Your task to perform on an android device: What's on my calendar today? Image 0: 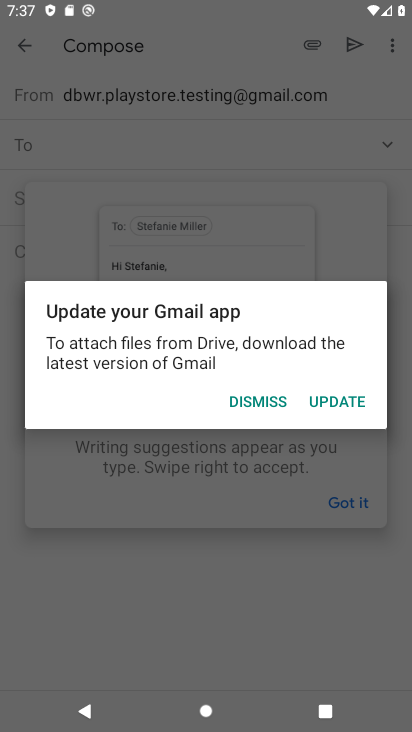
Step 0: press home button
Your task to perform on an android device: What's on my calendar today? Image 1: 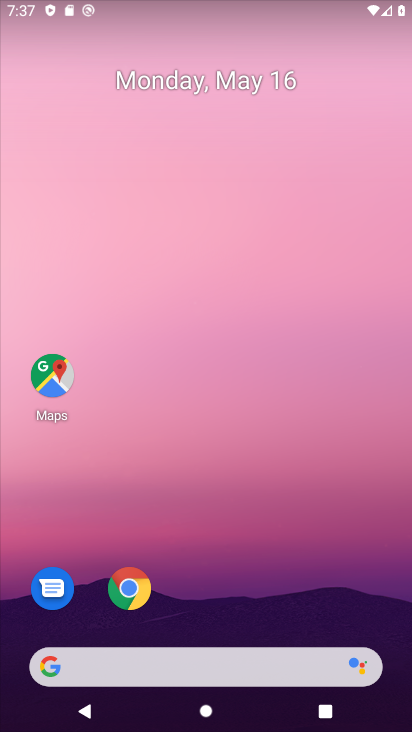
Step 1: drag from (319, 582) to (301, 131)
Your task to perform on an android device: What's on my calendar today? Image 2: 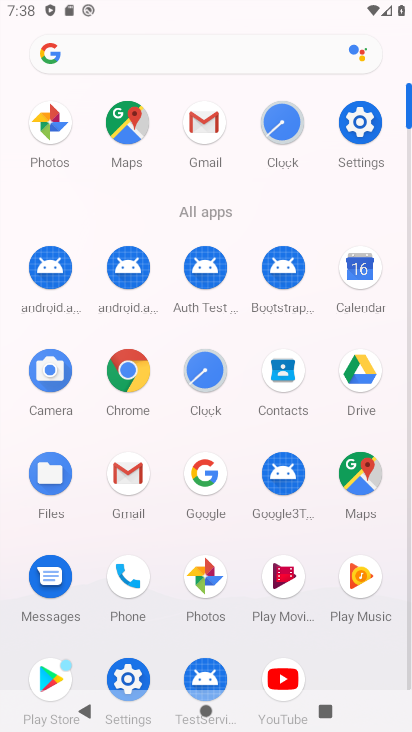
Step 2: click (365, 281)
Your task to perform on an android device: What's on my calendar today? Image 3: 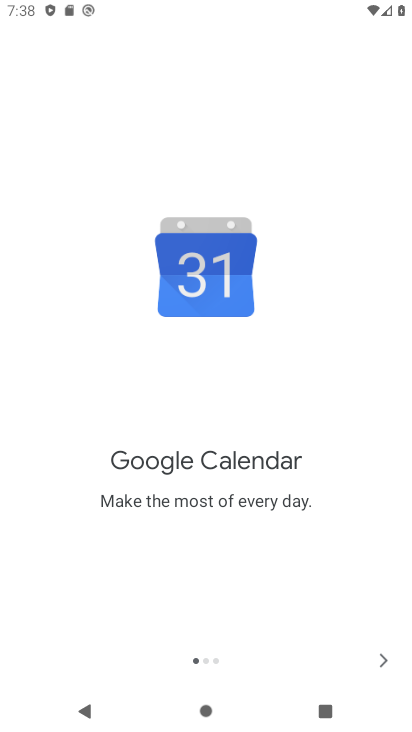
Step 3: click (377, 660)
Your task to perform on an android device: What's on my calendar today? Image 4: 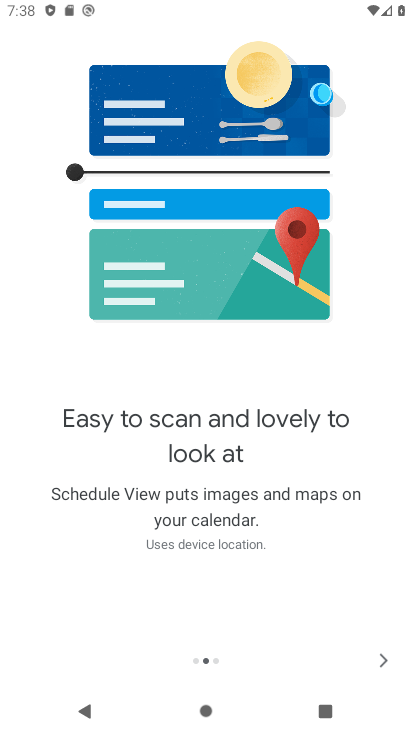
Step 4: click (389, 668)
Your task to perform on an android device: What's on my calendar today? Image 5: 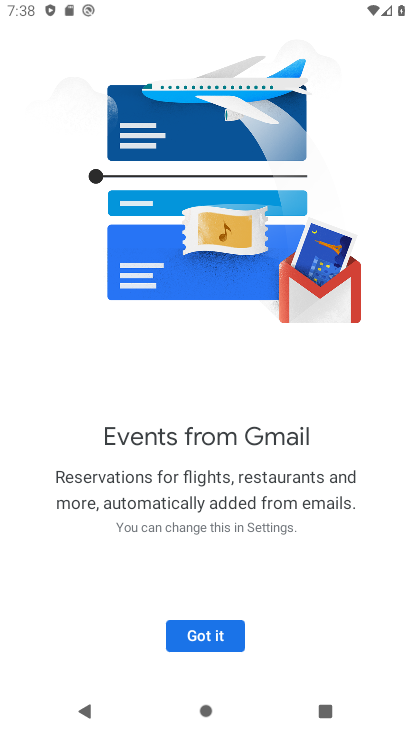
Step 5: click (235, 640)
Your task to perform on an android device: What's on my calendar today? Image 6: 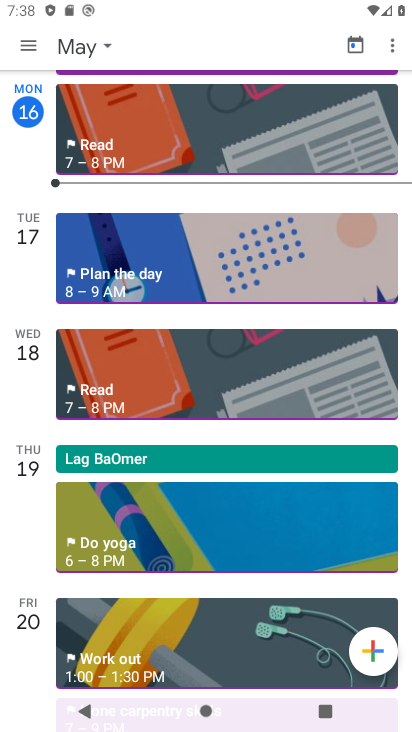
Step 6: click (110, 47)
Your task to perform on an android device: What's on my calendar today? Image 7: 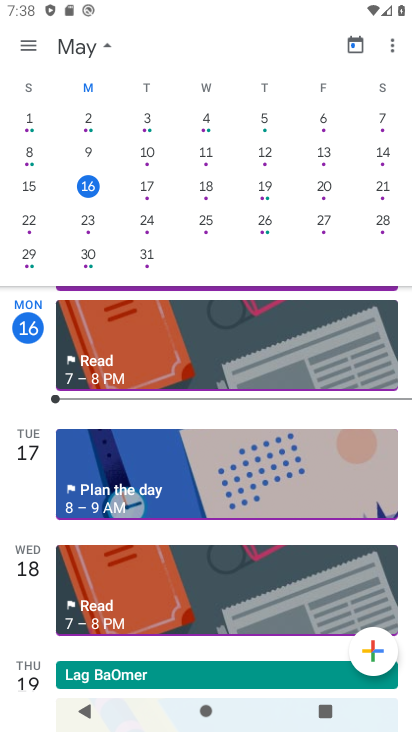
Step 7: click (143, 186)
Your task to perform on an android device: What's on my calendar today? Image 8: 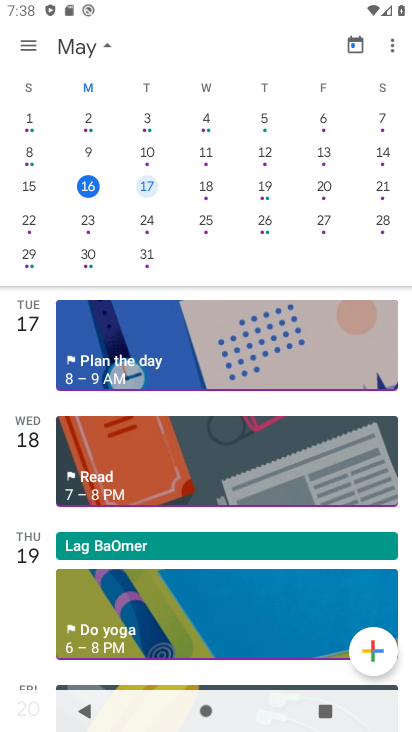
Step 8: task complete